Your task to perform on an android device: Open the web browser Image 0: 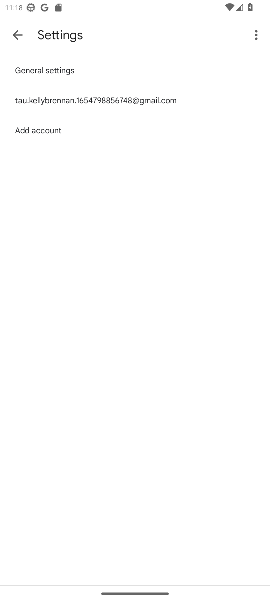
Step 0: press home button
Your task to perform on an android device: Open the web browser Image 1: 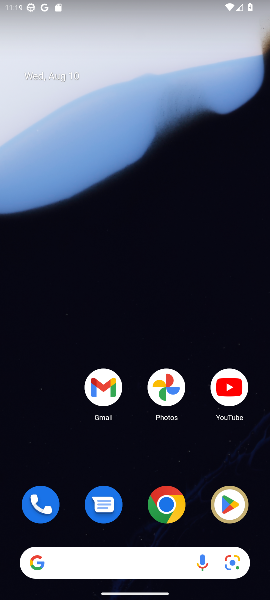
Step 1: drag from (71, 39) to (247, 275)
Your task to perform on an android device: Open the web browser Image 2: 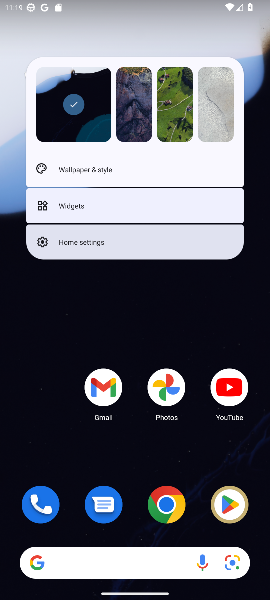
Step 2: drag from (79, 406) to (72, 0)
Your task to perform on an android device: Open the web browser Image 3: 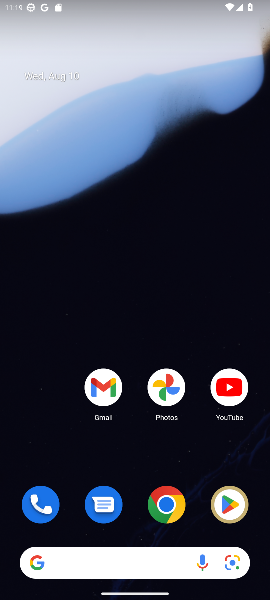
Step 3: drag from (40, 432) to (154, 8)
Your task to perform on an android device: Open the web browser Image 4: 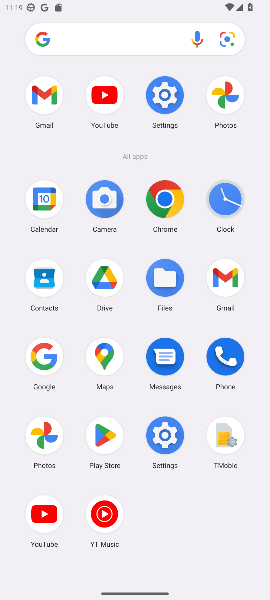
Step 4: click (48, 362)
Your task to perform on an android device: Open the web browser Image 5: 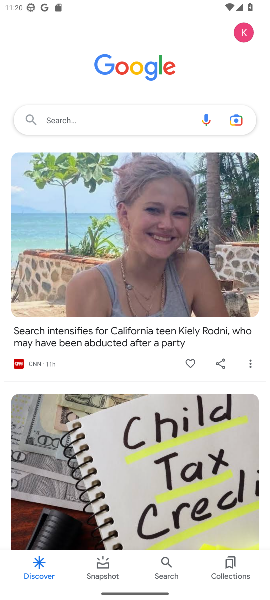
Step 5: task complete